Your task to perform on an android device: add a contact in the contacts app Image 0: 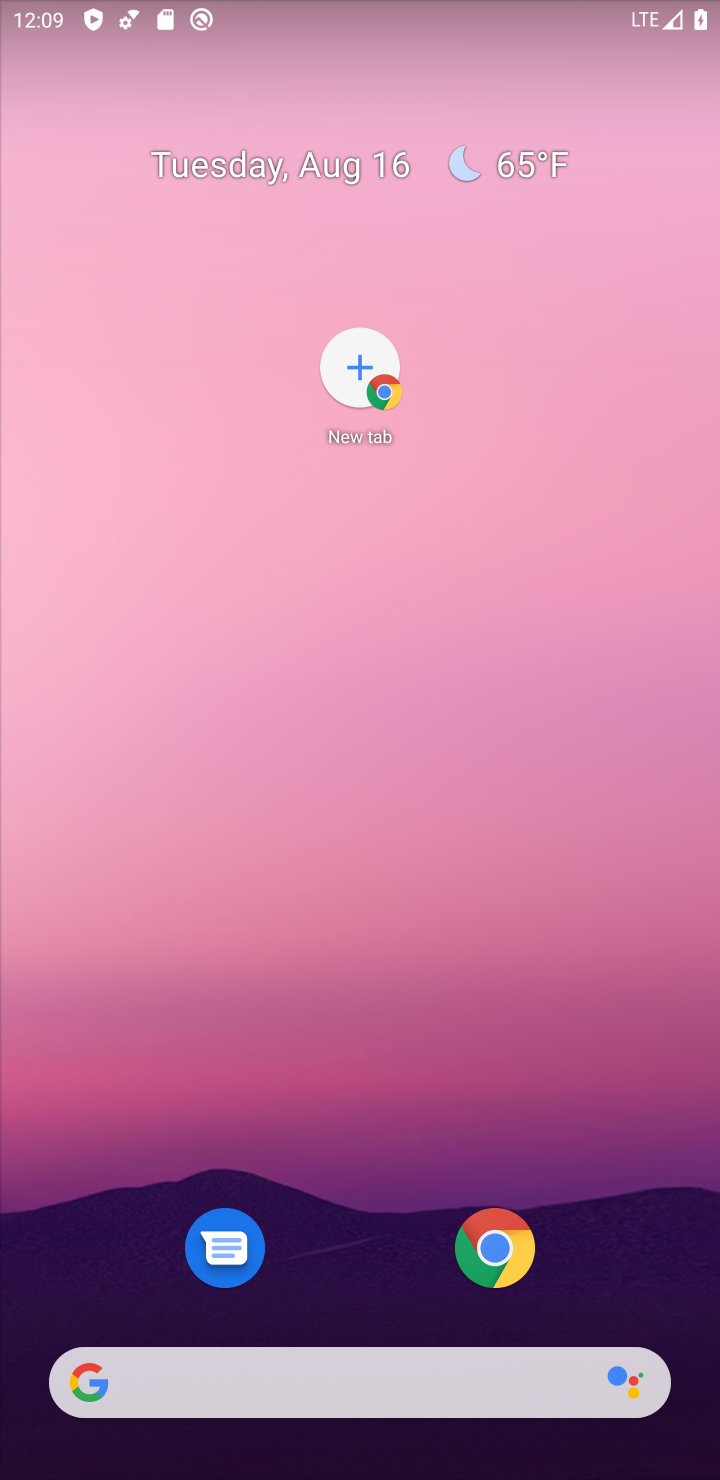
Step 0: drag from (415, 1328) to (32, 249)
Your task to perform on an android device: add a contact in the contacts app Image 1: 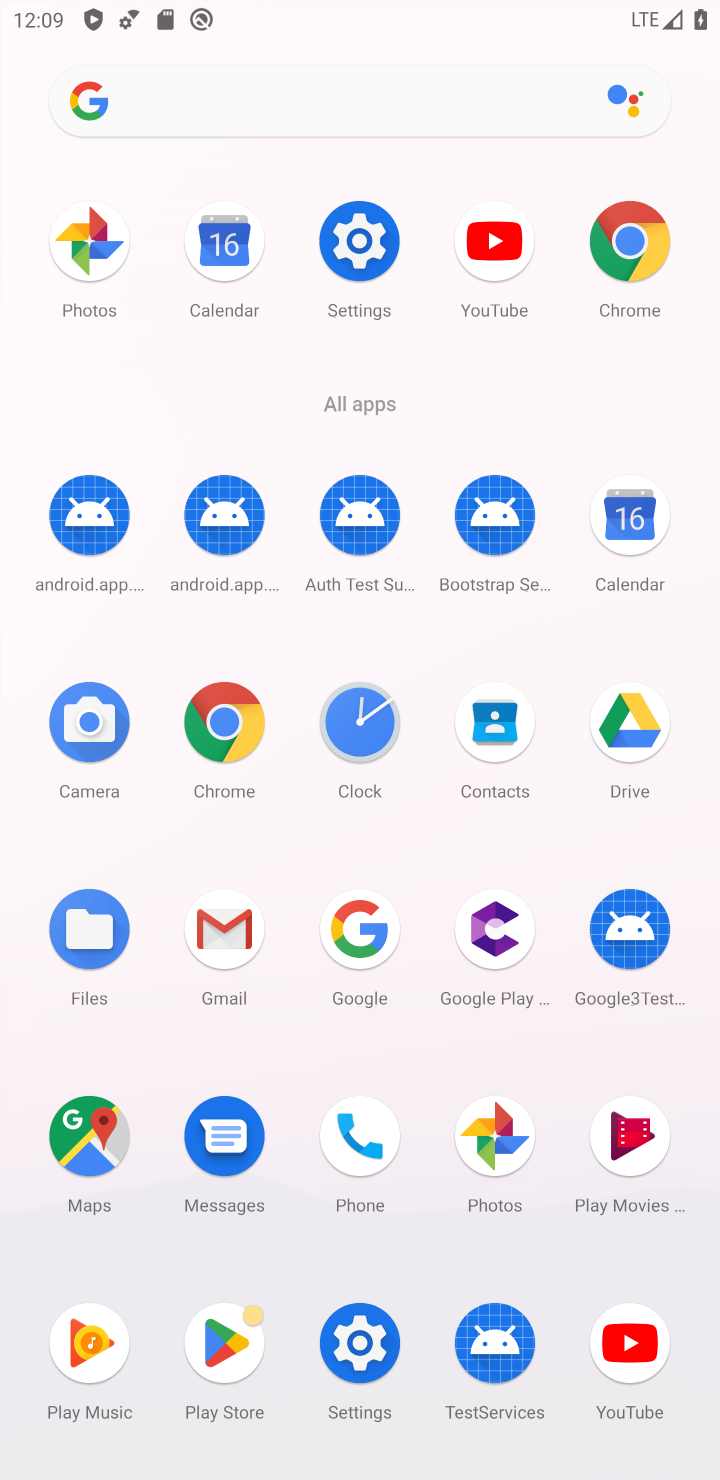
Step 1: click (491, 751)
Your task to perform on an android device: add a contact in the contacts app Image 2: 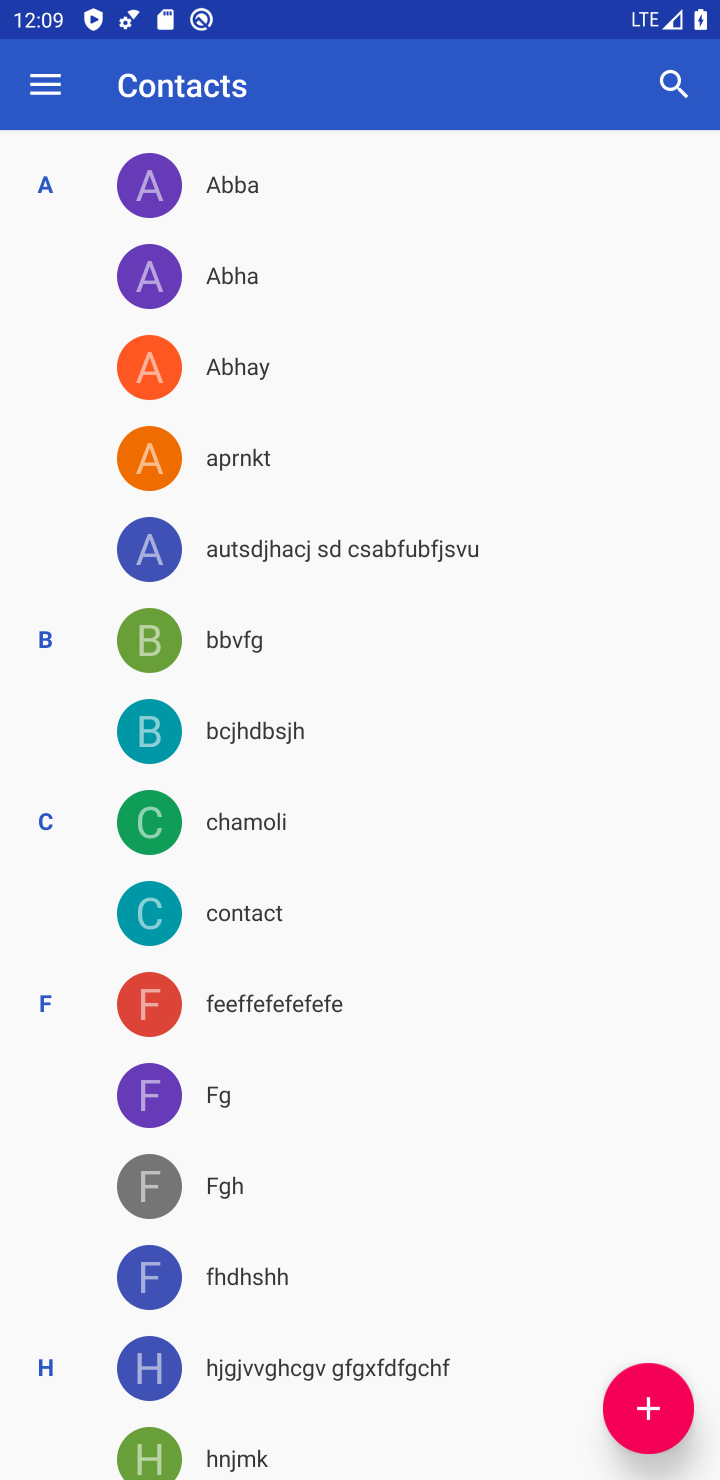
Step 2: click (643, 1415)
Your task to perform on an android device: add a contact in the contacts app Image 3: 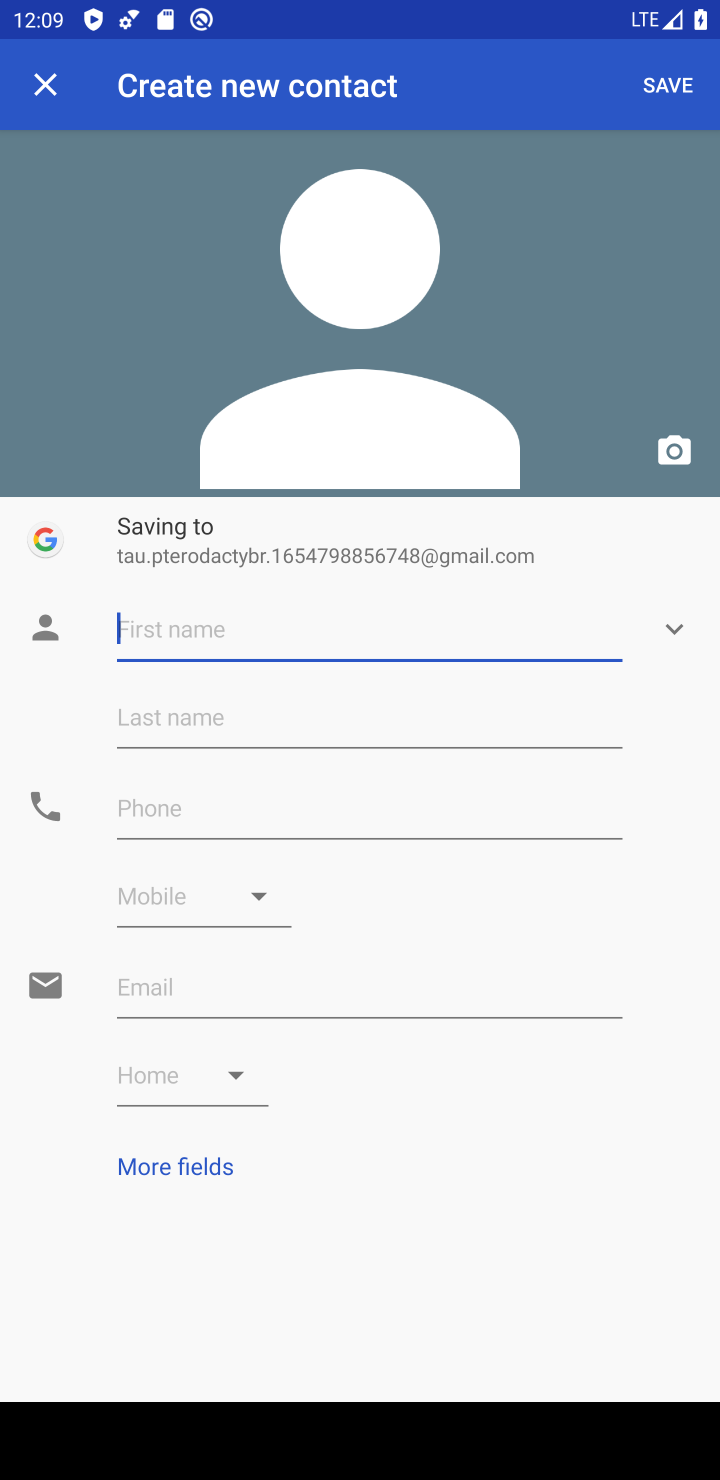
Step 3: type "gjfvvcy"
Your task to perform on an android device: add a contact in the contacts app Image 4: 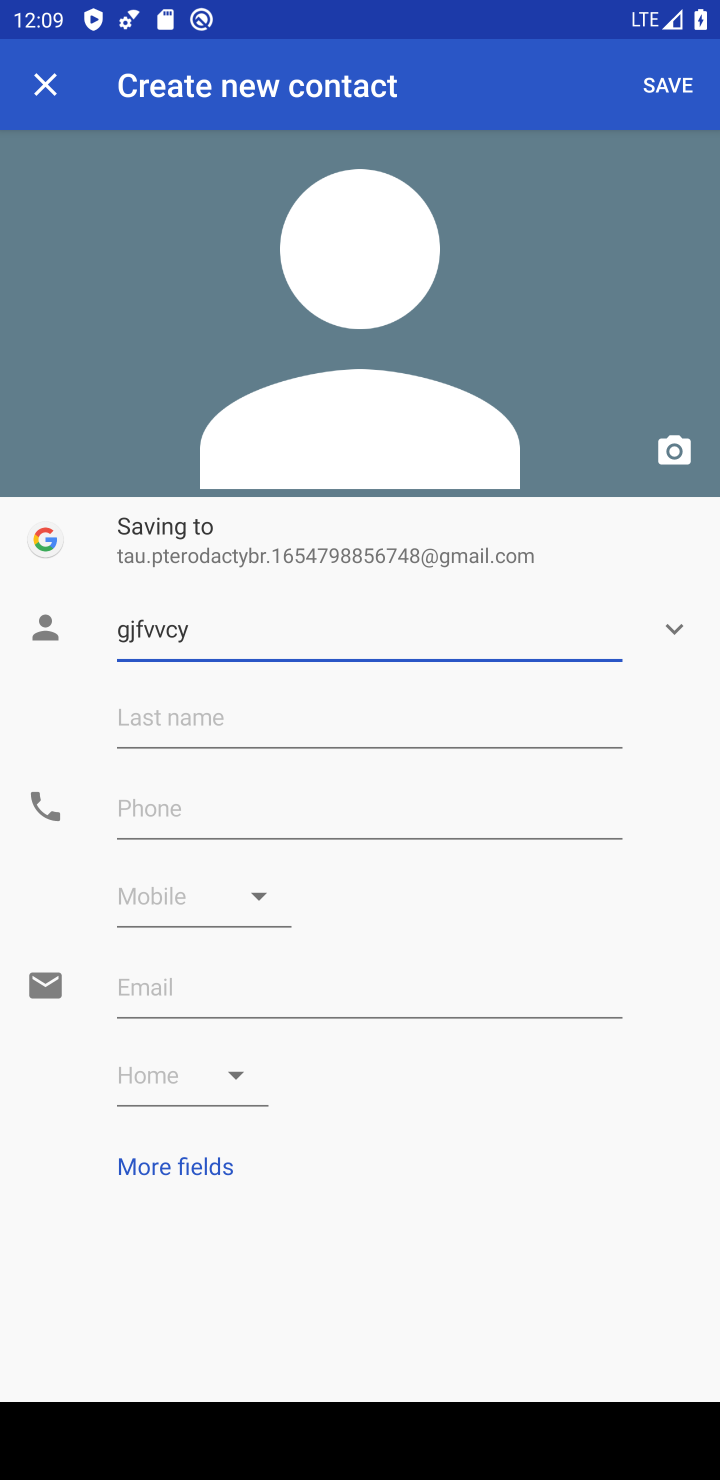
Step 4: click (418, 732)
Your task to perform on an android device: add a contact in the contacts app Image 5: 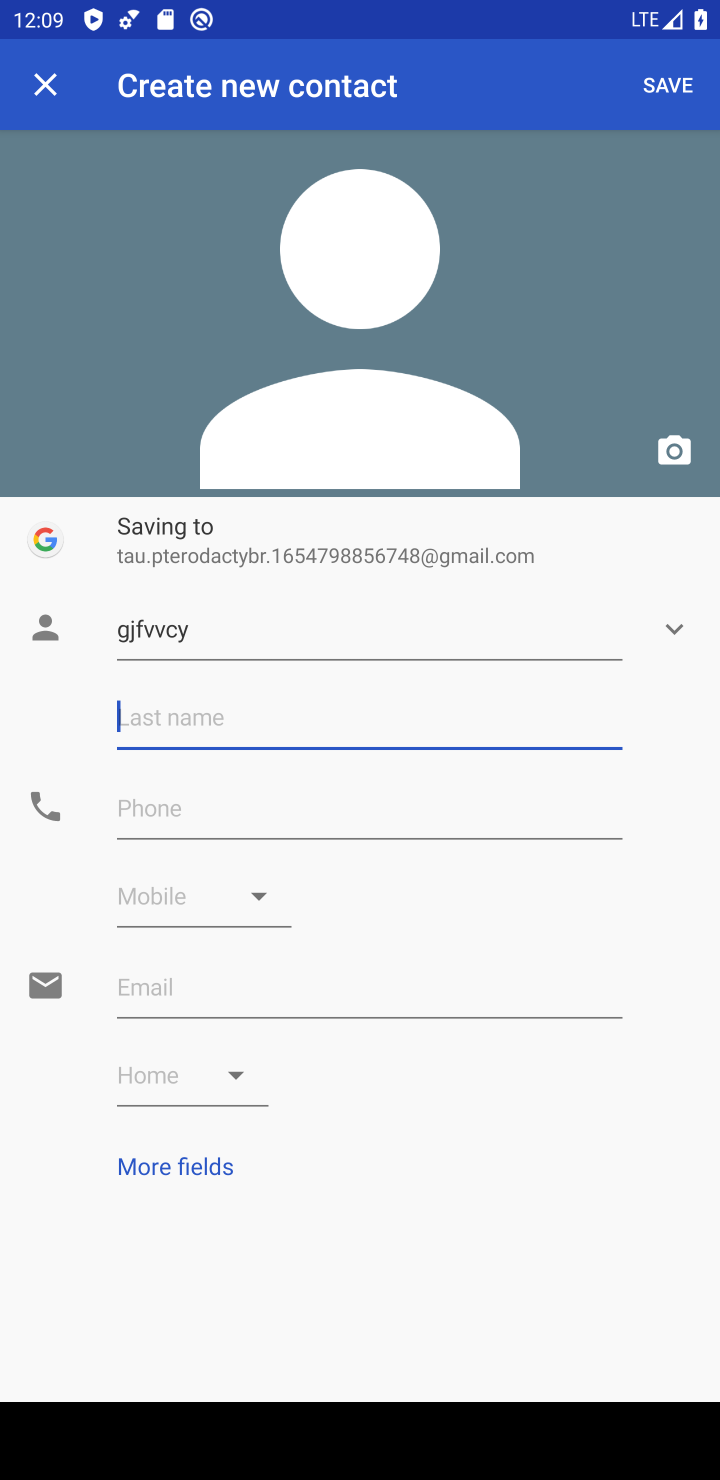
Step 5: type "fycytc"
Your task to perform on an android device: add a contact in the contacts app Image 6: 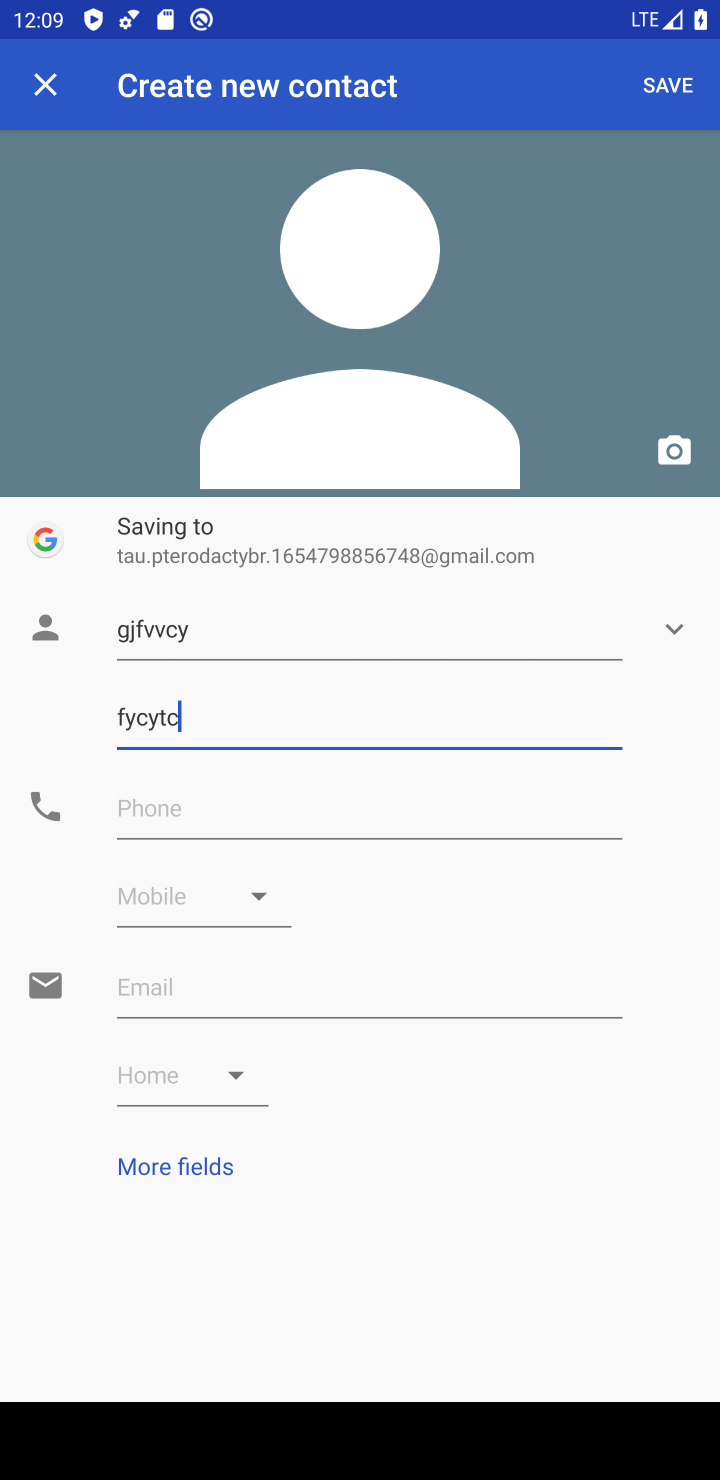
Step 6: click (441, 779)
Your task to perform on an android device: add a contact in the contacts app Image 7: 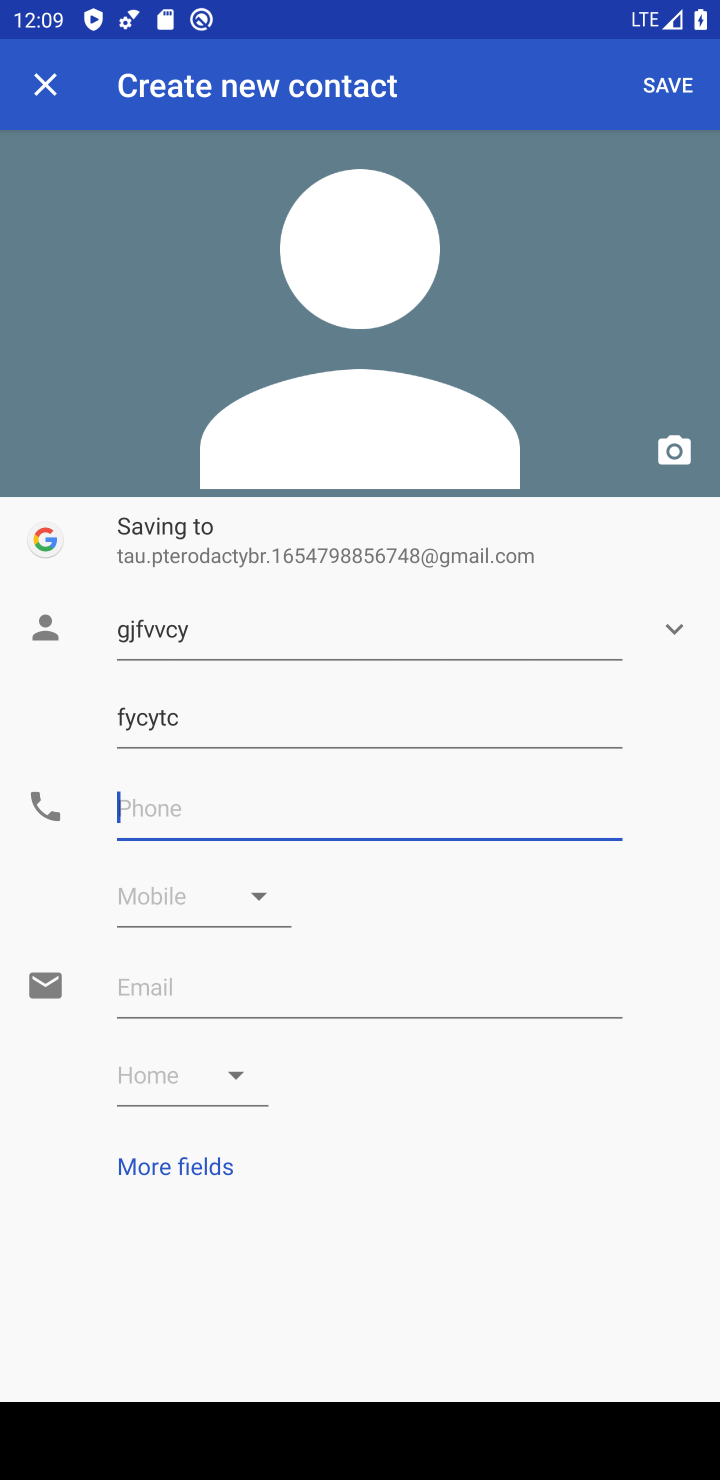
Step 7: type "23456789"
Your task to perform on an android device: add a contact in the contacts app Image 8: 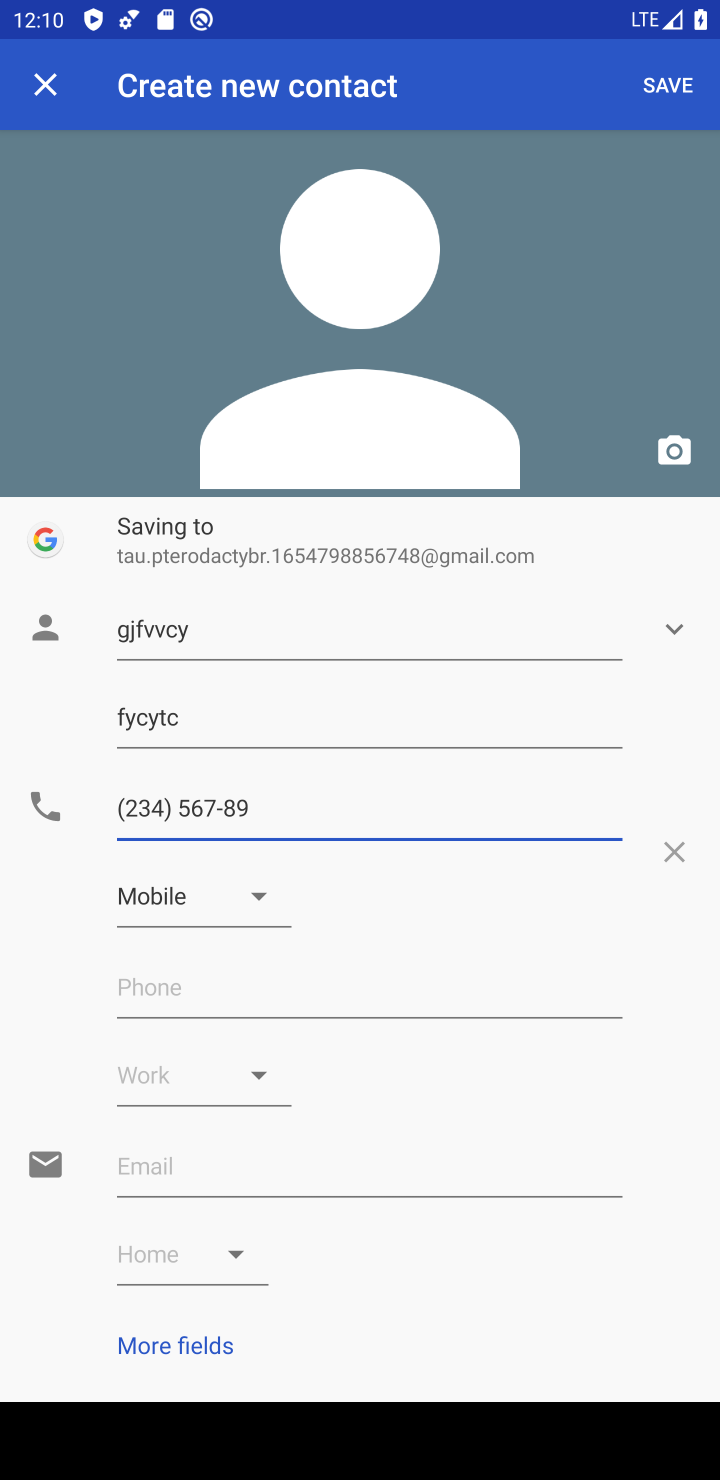
Step 8: click (674, 96)
Your task to perform on an android device: add a contact in the contacts app Image 9: 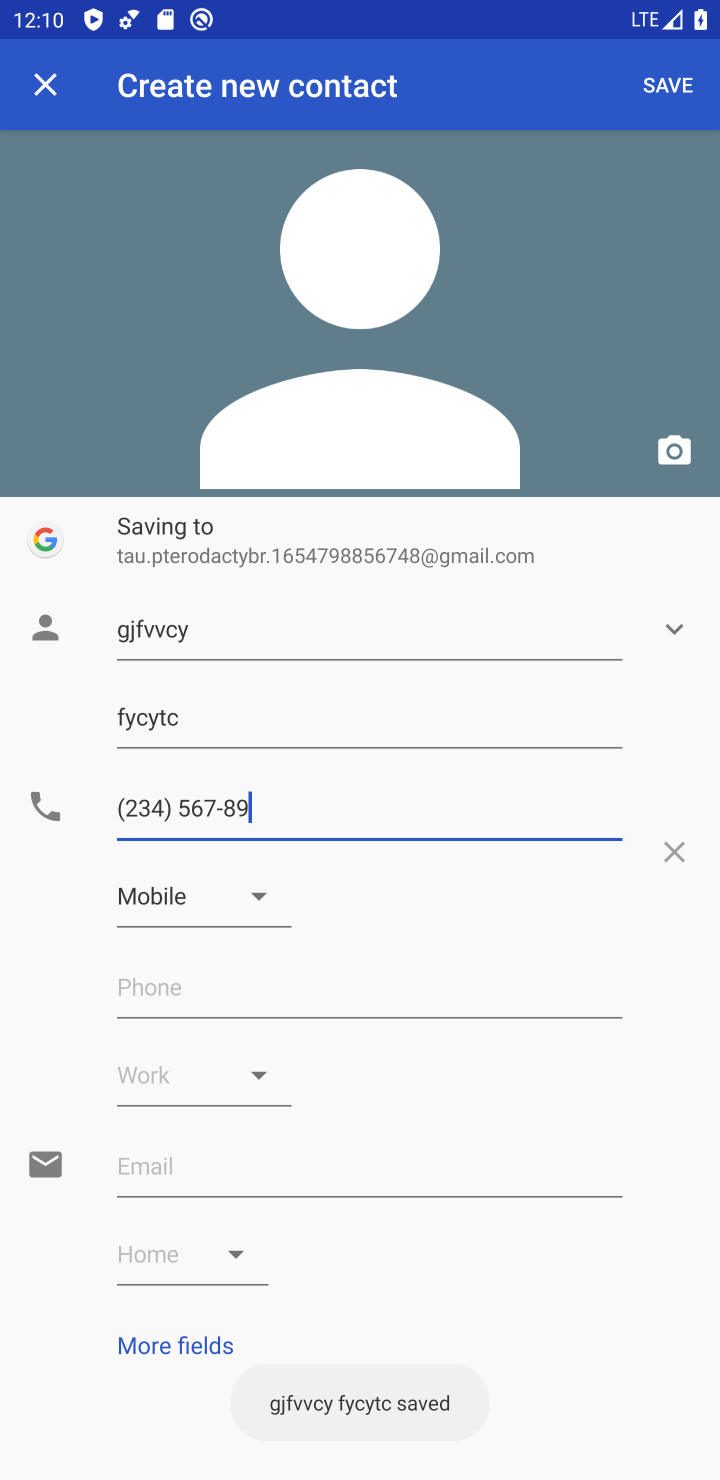
Step 9: task complete